Your task to perform on an android device: Go to ESPN.com Image 0: 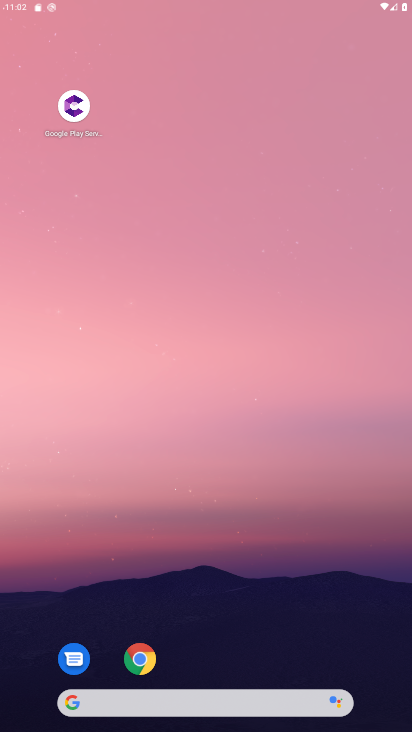
Step 0: press home button
Your task to perform on an android device: Go to ESPN.com Image 1: 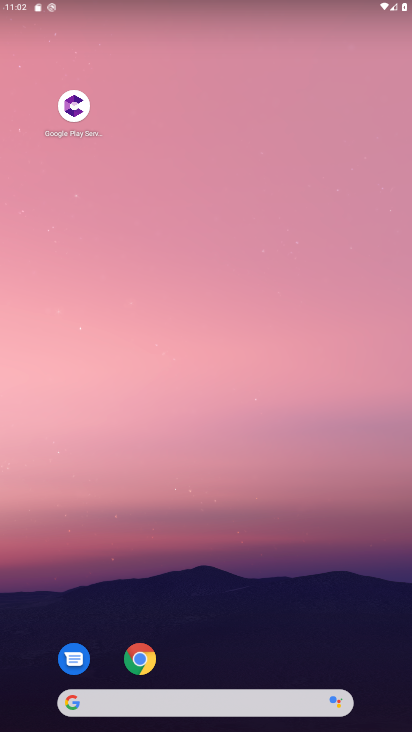
Step 1: click (141, 656)
Your task to perform on an android device: Go to ESPN.com Image 2: 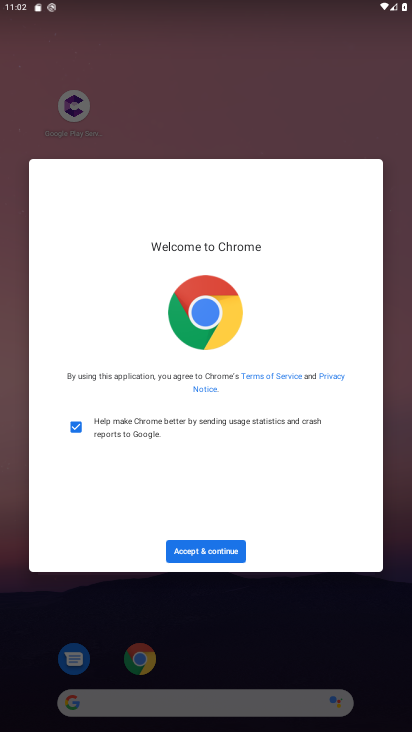
Step 2: click (210, 554)
Your task to perform on an android device: Go to ESPN.com Image 3: 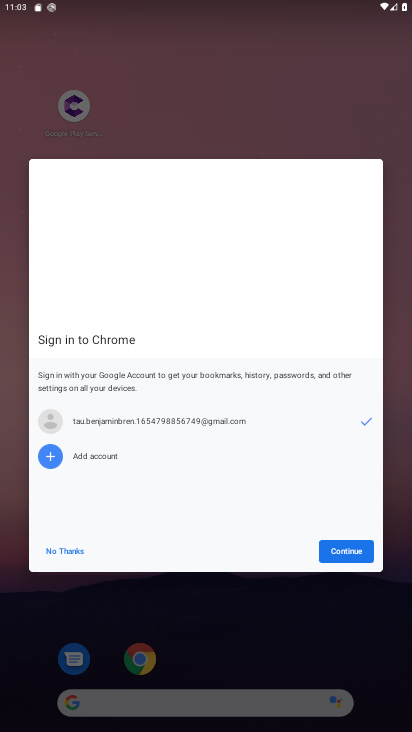
Step 3: click (345, 552)
Your task to perform on an android device: Go to ESPN.com Image 4: 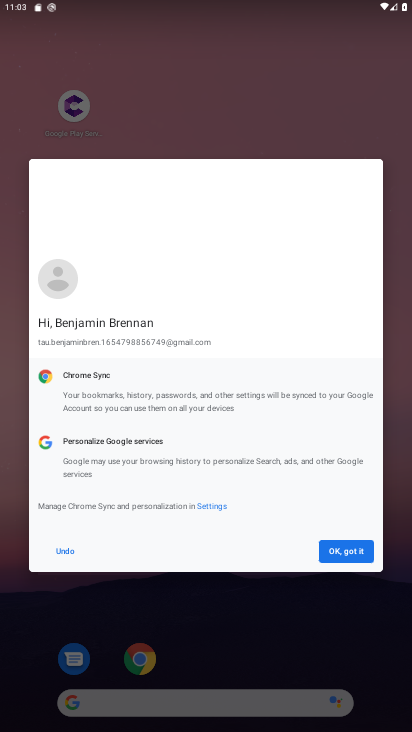
Step 4: click (346, 557)
Your task to perform on an android device: Go to ESPN.com Image 5: 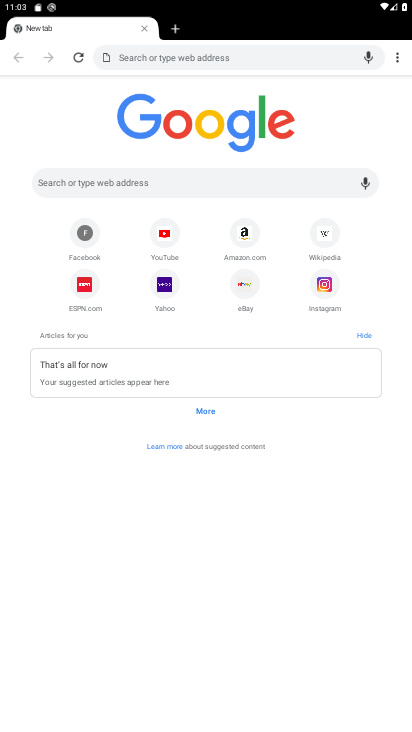
Step 5: click (83, 281)
Your task to perform on an android device: Go to ESPN.com Image 6: 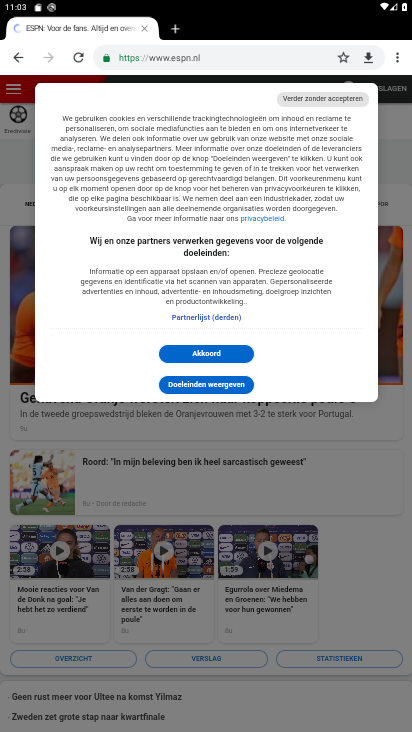
Step 6: click (205, 352)
Your task to perform on an android device: Go to ESPN.com Image 7: 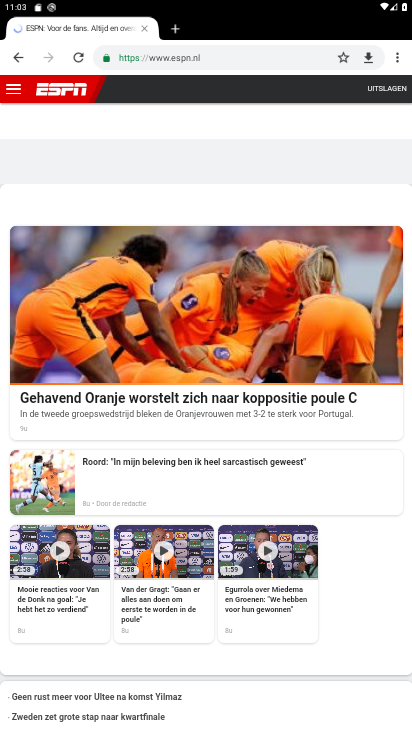
Step 7: task complete